Your task to perform on an android device: Open Google Chrome Image 0: 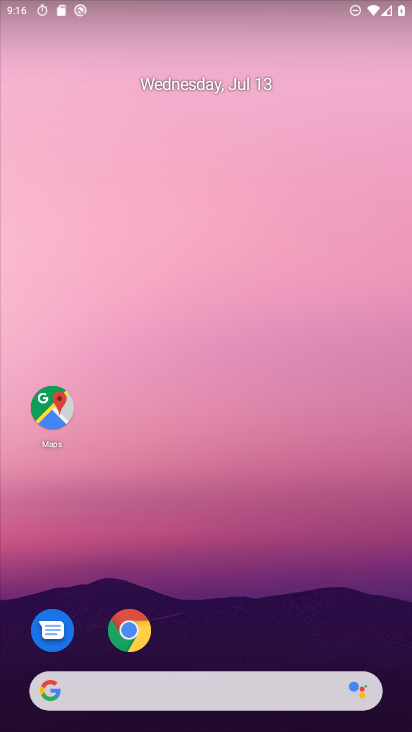
Step 0: drag from (380, 635) to (160, 17)
Your task to perform on an android device: Open Google Chrome Image 1: 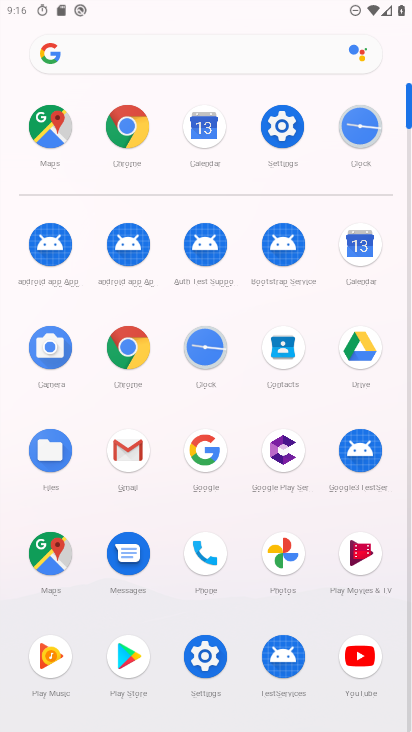
Step 1: click (147, 344)
Your task to perform on an android device: Open Google Chrome Image 2: 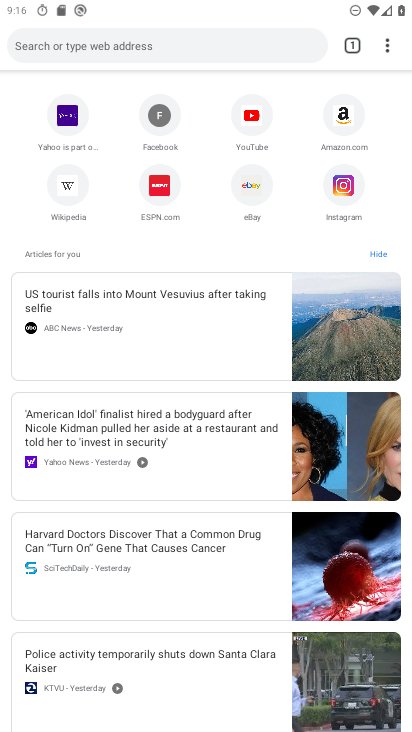
Step 2: task complete